Your task to perform on an android device: toggle notifications settings in the gmail app Image 0: 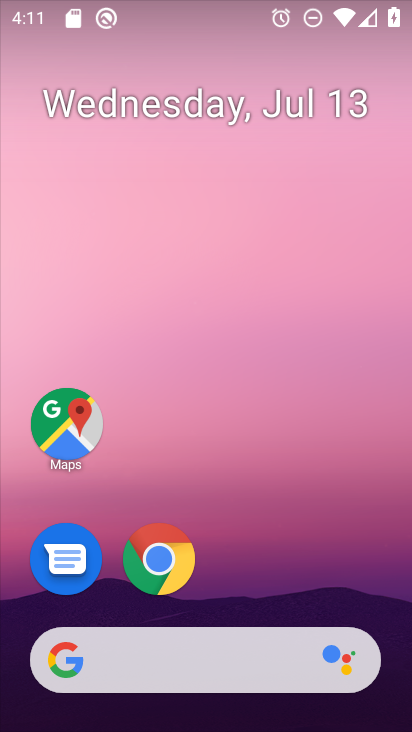
Step 0: drag from (378, 583) to (381, 114)
Your task to perform on an android device: toggle notifications settings in the gmail app Image 1: 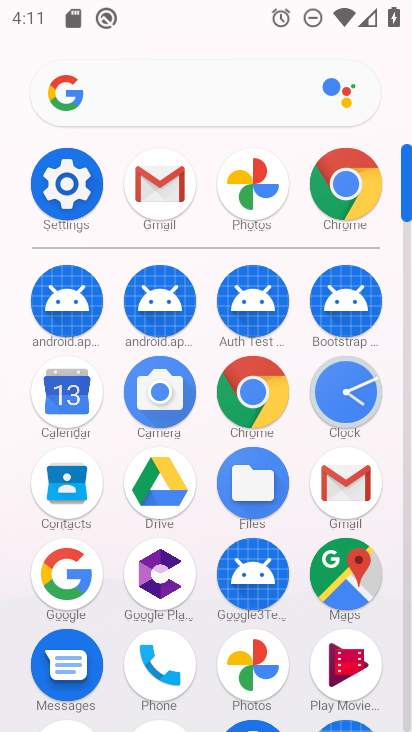
Step 1: click (352, 490)
Your task to perform on an android device: toggle notifications settings in the gmail app Image 2: 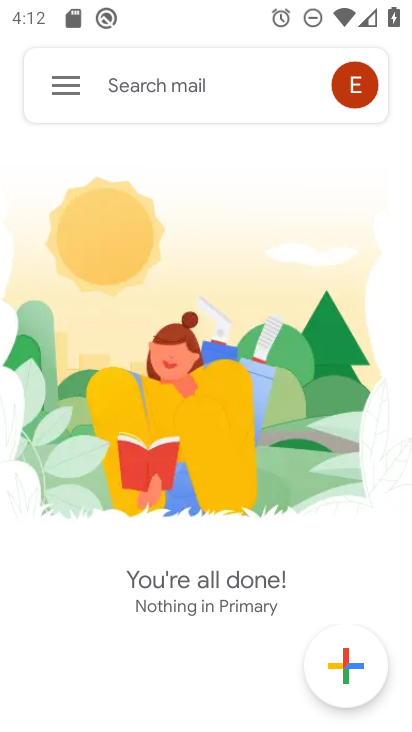
Step 2: click (67, 88)
Your task to perform on an android device: toggle notifications settings in the gmail app Image 3: 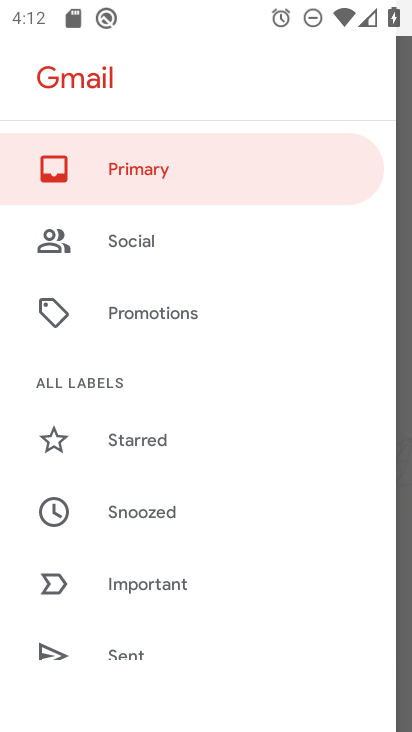
Step 3: drag from (278, 435) to (298, 365)
Your task to perform on an android device: toggle notifications settings in the gmail app Image 4: 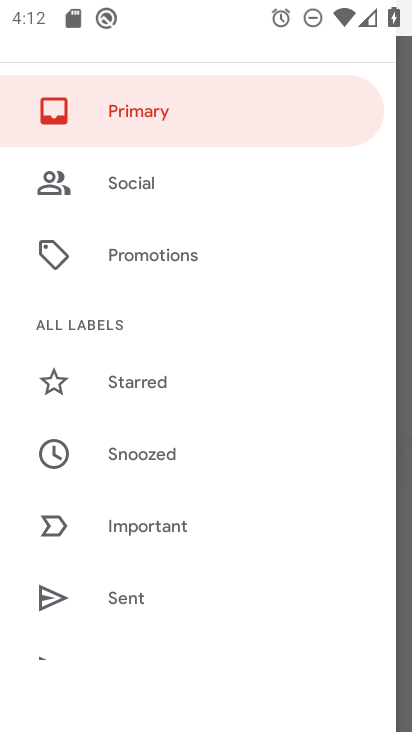
Step 4: drag from (308, 475) to (316, 374)
Your task to perform on an android device: toggle notifications settings in the gmail app Image 5: 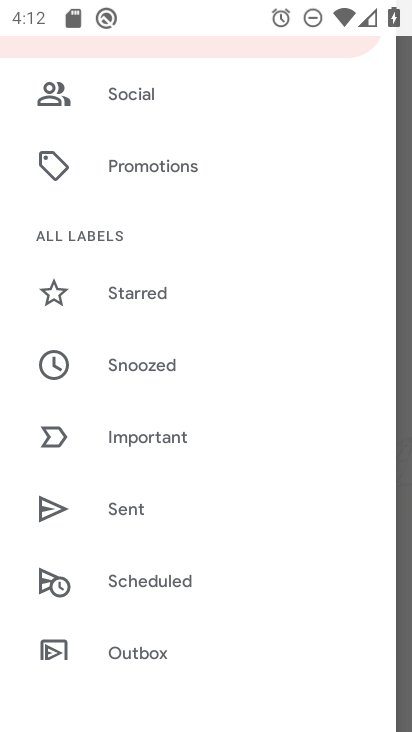
Step 5: drag from (322, 483) to (325, 366)
Your task to perform on an android device: toggle notifications settings in the gmail app Image 6: 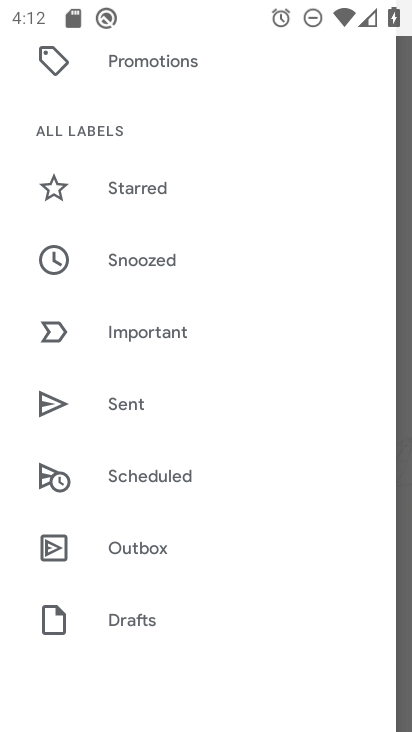
Step 6: drag from (317, 451) to (316, 272)
Your task to perform on an android device: toggle notifications settings in the gmail app Image 7: 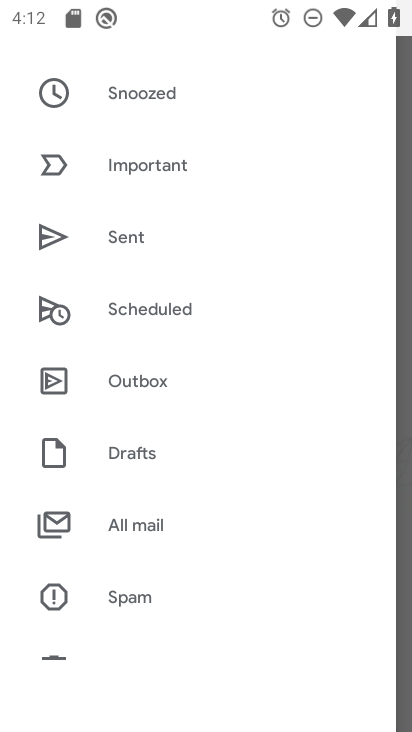
Step 7: drag from (324, 417) to (324, 330)
Your task to perform on an android device: toggle notifications settings in the gmail app Image 8: 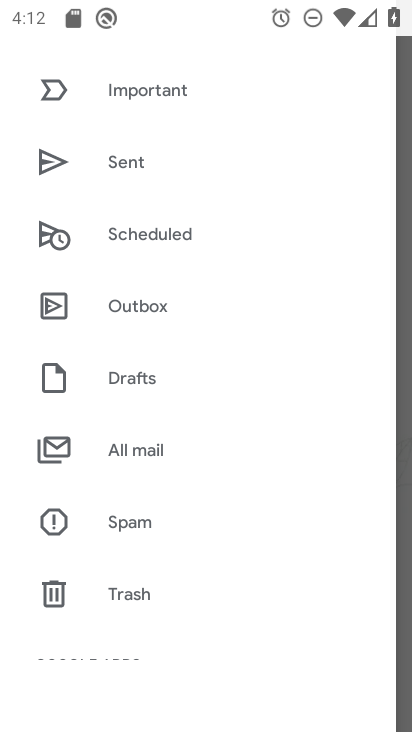
Step 8: drag from (300, 449) to (297, 236)
Your task to perform on an android device: toggle notifications settings in the gmail app Image 9: 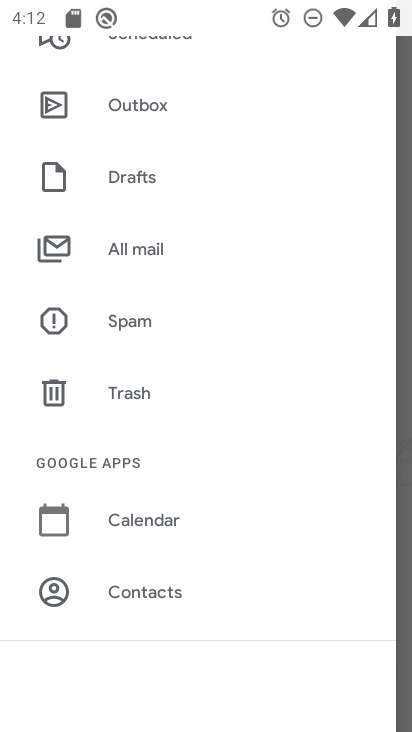
Step 9: drag from (284, 464) to (283, 235)
Your task to perform on an android device: toggle notifications settings in the gmail app Image 10: 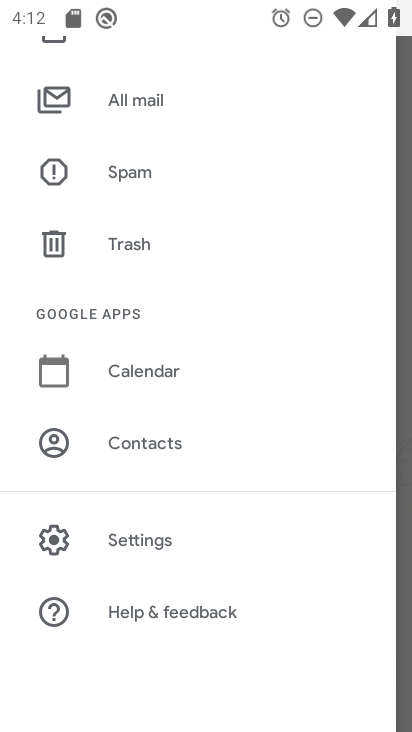
Step 10: click (183, 546)
Your task to perform on an android device: toggle notifications settings in the gmail app Image 11: 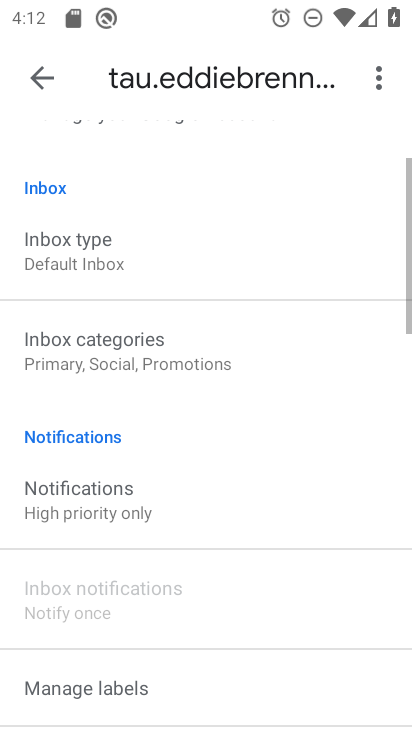
Step 11: drag from (286, 472) to (286, 403)
Your task to perform on an android device: toggle notifications settings in the gmail app Image 12: 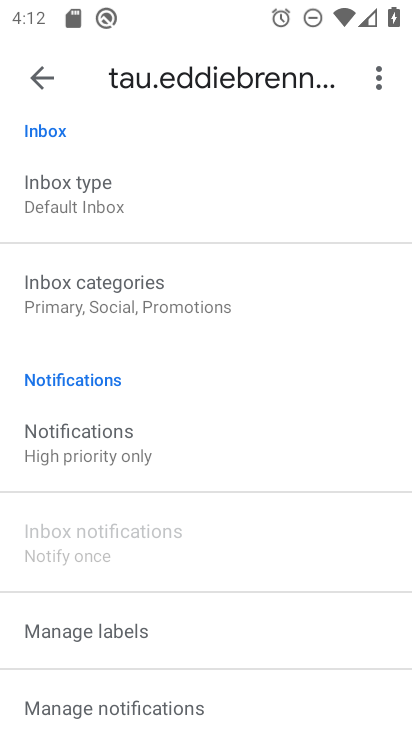
Step 12: drag from (283, 468) to (298, 366)
Your task to perform on an android device: toggle notifications settings in the gmail app Image 13: 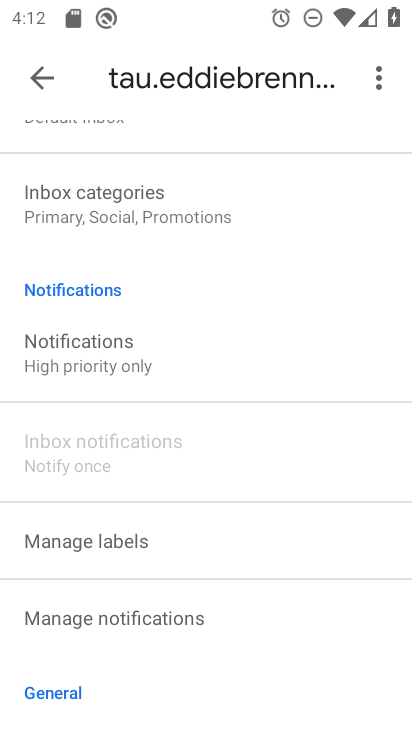
Step 13: drag from (312, 504) to (324, 418)
Your task to perform on an android device: toggle notifications settings in the gmail app Image 14: 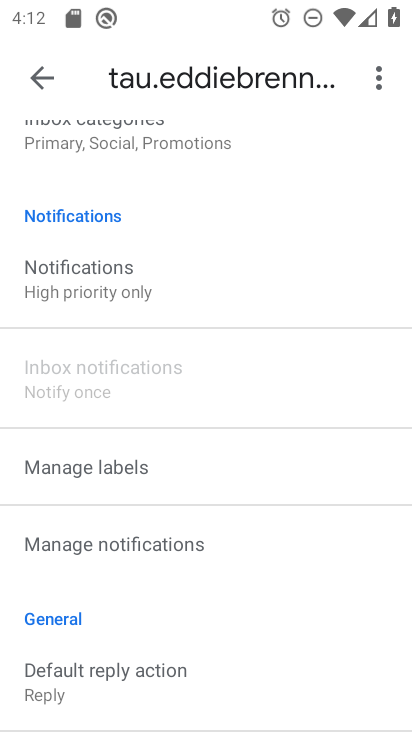
Step 14: drag from (317, 512) to (316, 372)
Your task to perform on an android device: toggle notifications settings in the gmail app Image 15: 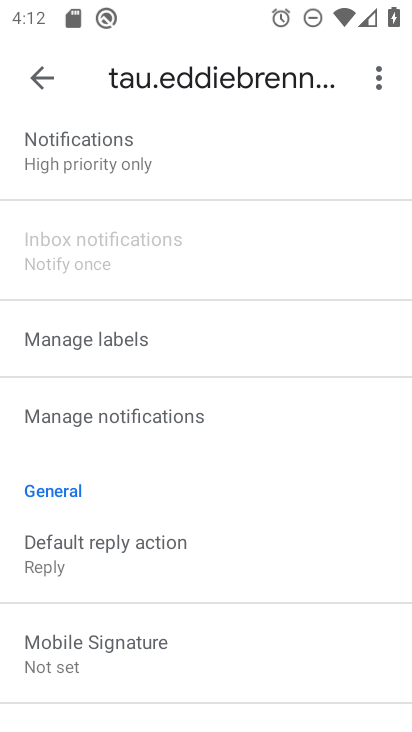
Step 15: click (187, 161)
Your task to perform on an android device: toggle notifications settings in the gmail app Image 16: 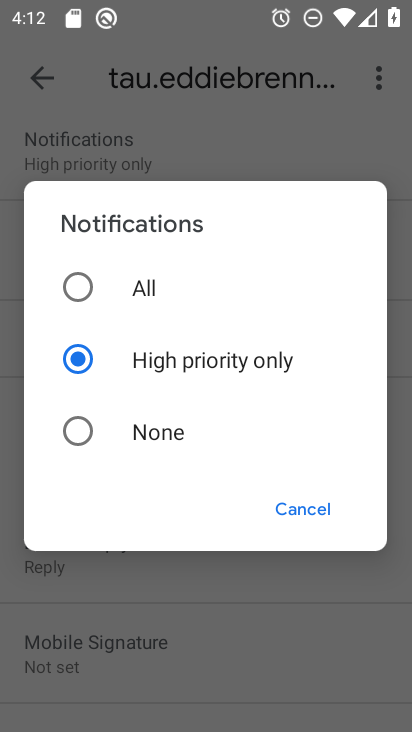
Step 16: click (179, 286)
Your task to perform on an android device: toggle notifications settings in the gmail app Image 17: 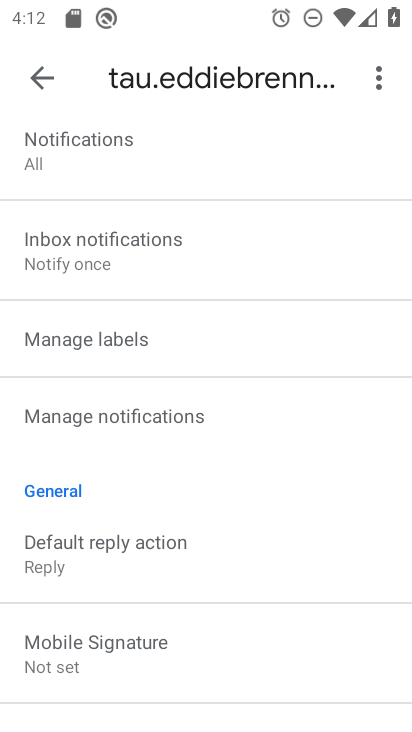
Step 17: task complete